Your task to perform on an android device: Open ESPN.com Image 0: 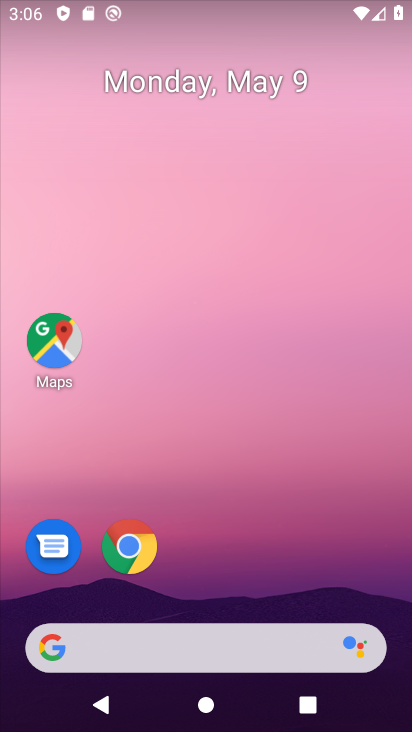
Step 0: drag from (201, 525) to (104, 97)
Your task to perform on an android device: Open ESPN.com Image 1: 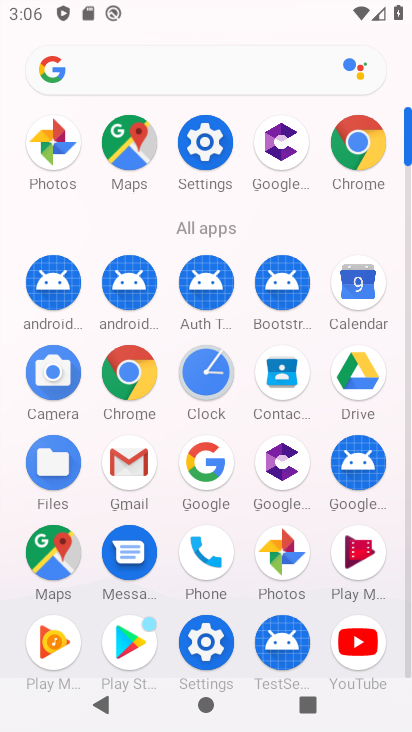
Step 1: click (345, 156)
Your task to perform on an android device: Open ESPN.com Image 2: 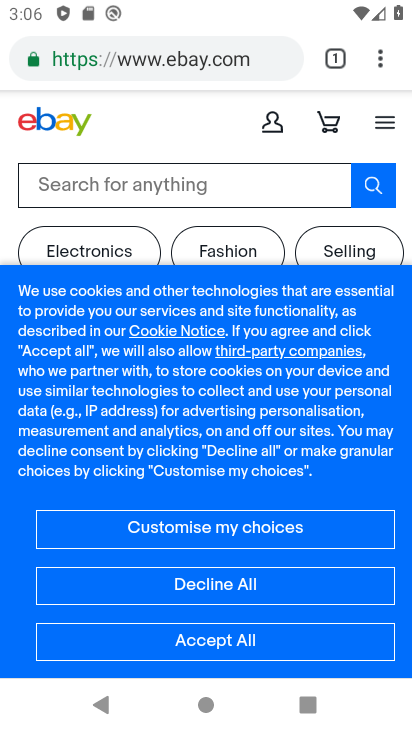
Step 2: click (215, 49)
Your task to perform on an android device: Open ESPN.com Image 3: 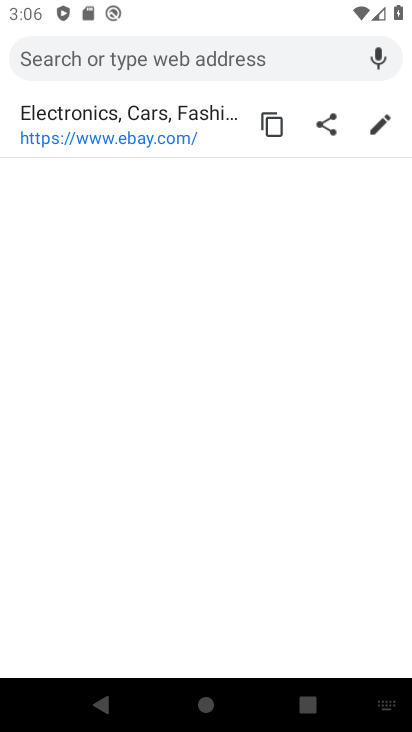
Step 3: type "espn"
Your task to perform on an android device: Open ESPN.com Image 4: 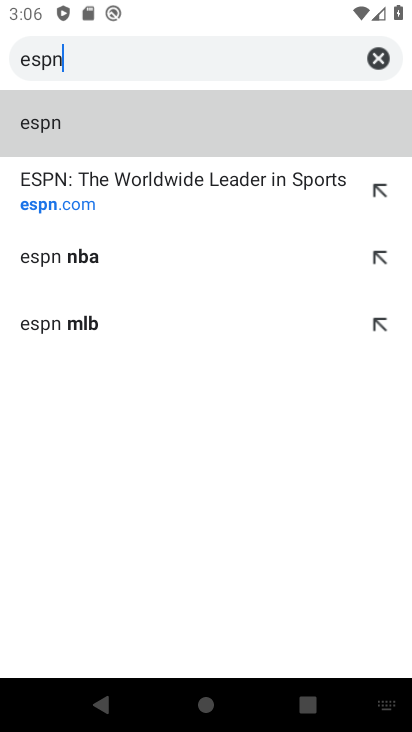
Step 4: click (53, 200)
Your task to perform on an android device: Open ESPN.com Image 5: 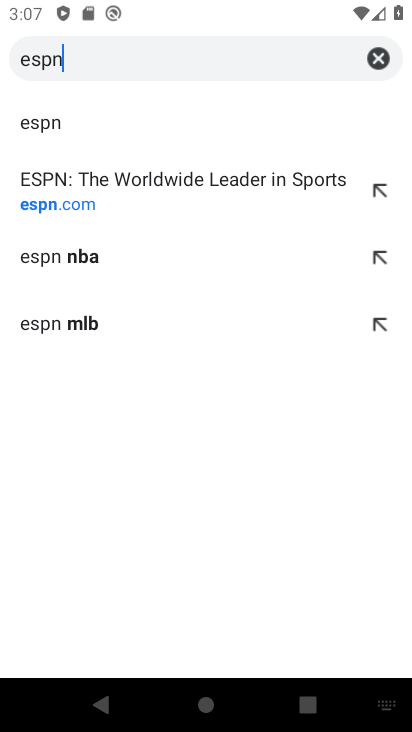
Step 5: click (53, 199)
Your task to perform on an android device: Open ESPN.com Image 6: 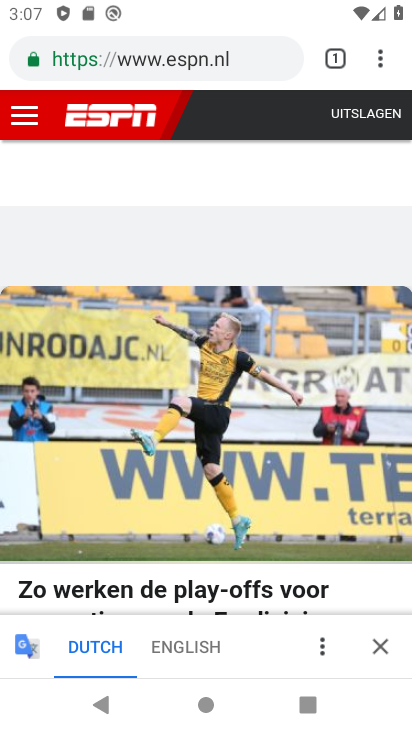
Step 6: task complete